Your task to perform on an android device: What's on my calendar today? Image 0: 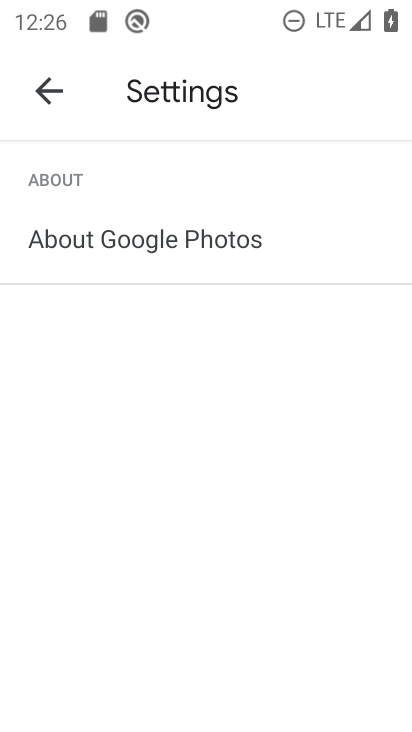
Step 0: press home button
Your task to perform on an android device: What's on my calendar today? Image 1: 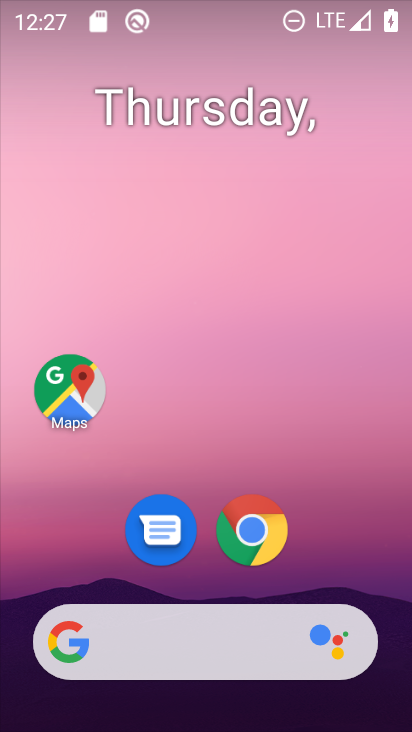
Step 1: drag from (168, 634) to (185, 109)
Your task to perform on an android device: What's on my calendar today? Image 2: 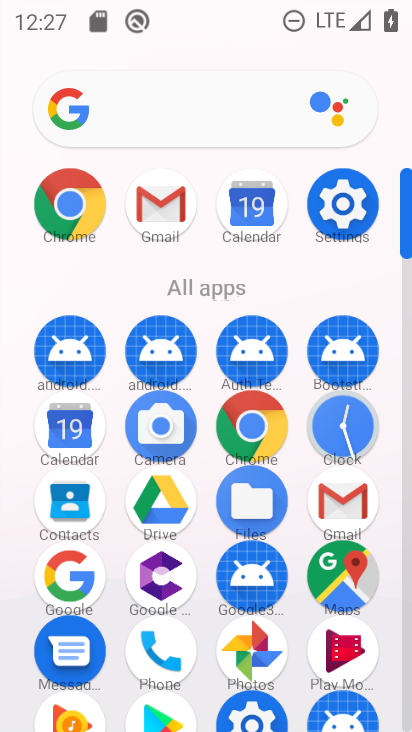
Step 2: click (50, 448)
Your task to perform on an android device: What's on my calendar today? Image 3: 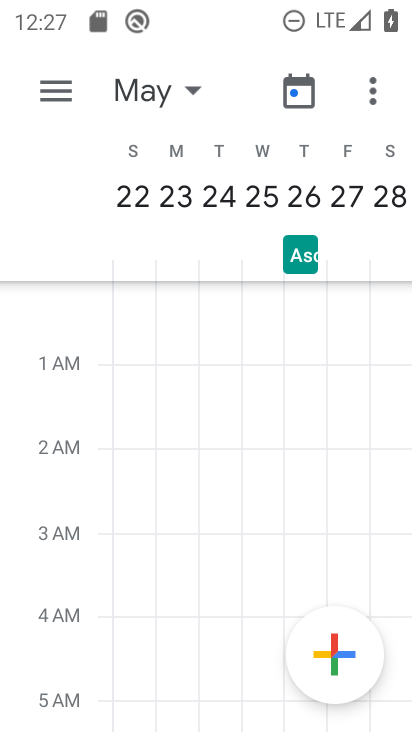
Step 3: click (54, 78)
Your task to perform on an android device: What's on my calendar today? Image 4: 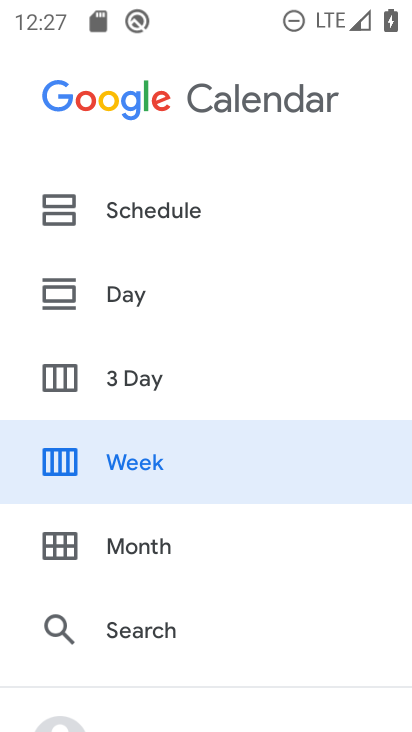
Step 4: click (128, 214)
Your task to perform on an android device: What's on my calendar today? Image 5: 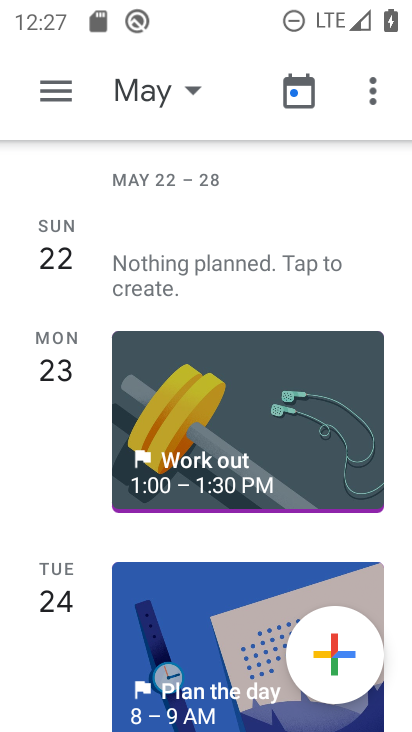
Step 5: click (154, 95)
Your task to perform on an android device: What's on my calendar today? Image 6: 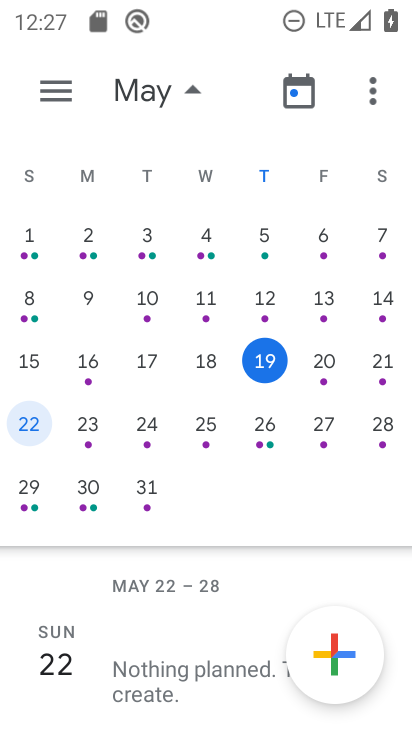
Step 6: click (263, 360)
Your task to perform on an android device: What's on my calendar today? Image 7: 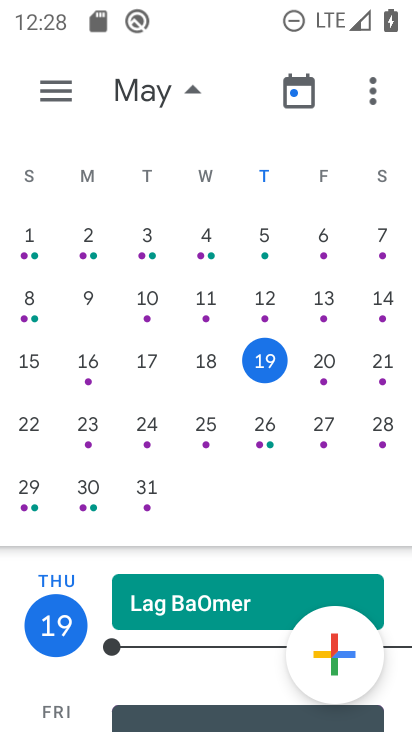
Step 7: click (173, 93)
Your task to perform on an android device: What's on my calendar today? Image 8: 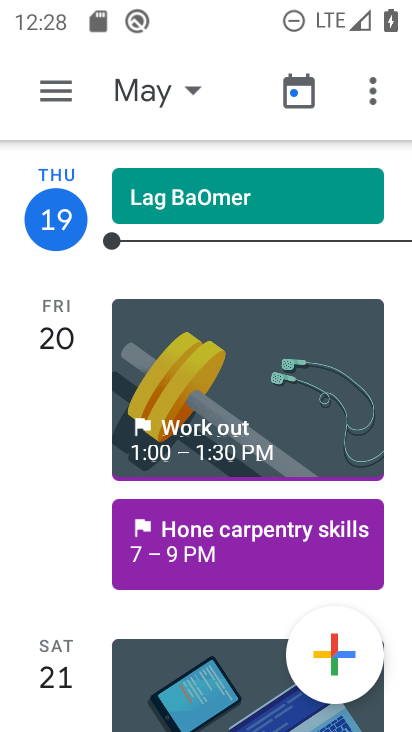
Step 8: task complete